Your task to perform on an android device: Show me popular videos on Youtube Image 0: 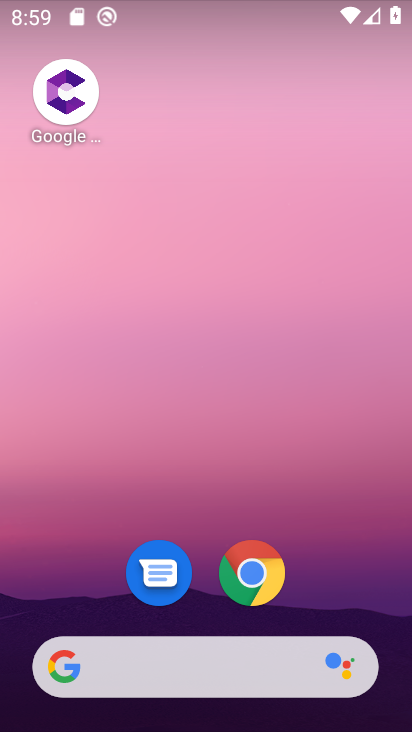
Step 0: drag from (99, 620) to (194, 126)
Your task to perform on an android device: Show me popular videos on Youtube Image 1: 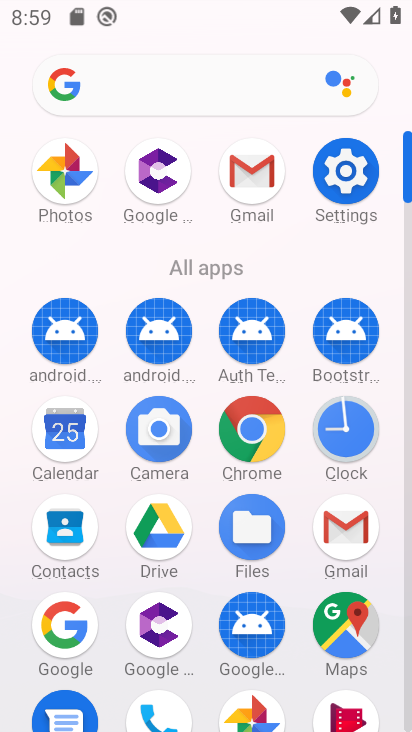
Step 1: drag from (176, 709) to (232, 352)
Your task to perform on an android device: Show me popular videos on Youtube Image 2: 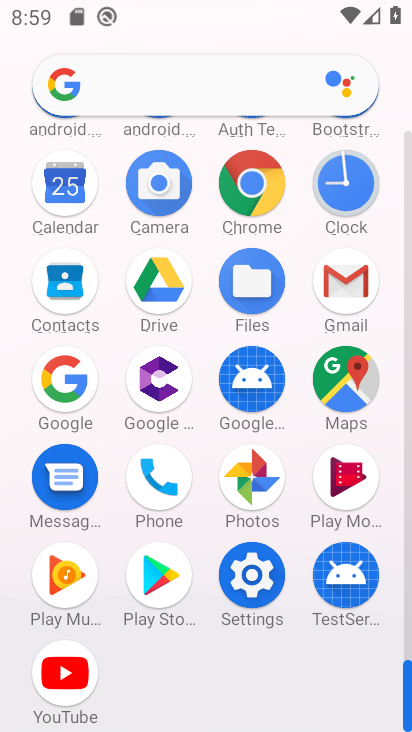
Step 2: click (73, 670)
Your task to perform on an android device: Show me popular videos on Youtube Image 3: 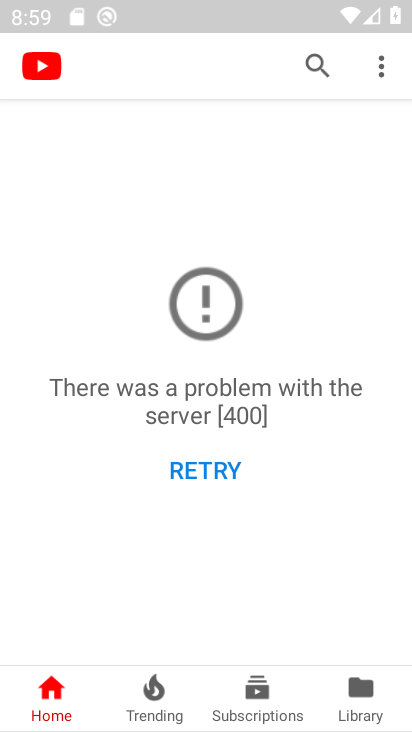
Step 3: click (359, 706)
Your task to perform on an android device: Show me popular videos on Youtube Image 4: 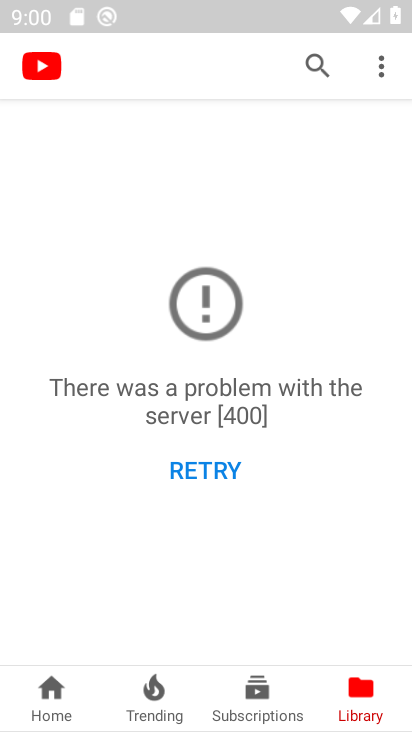
Step 4: task complete